Your task to perform on an android device: When is my next meeting? Image 0: 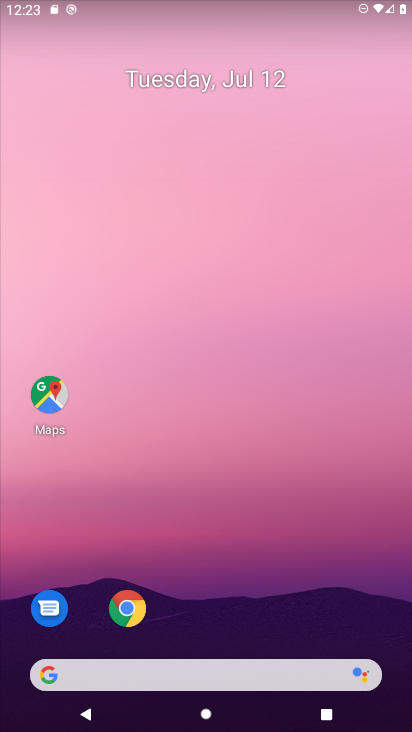
Step 0: drag from (211, 635) to (12, 604)
Your task to perform on an android device: When is my next meeting? Image 1: 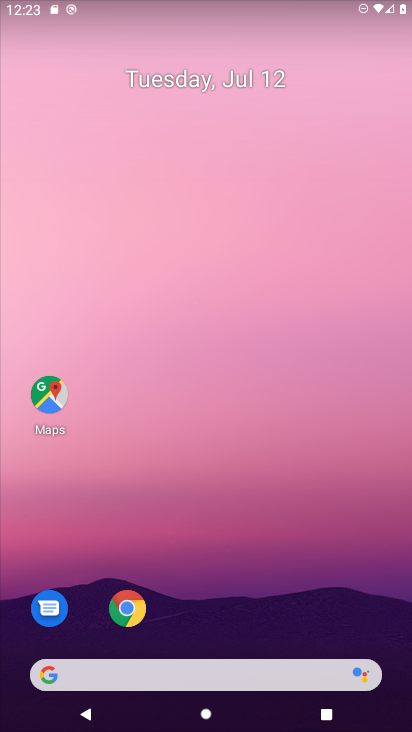
Step 1: drag from (220, 632) to (201, 52)
Your task to perform on an android device: When is my next meeting? Image 2: 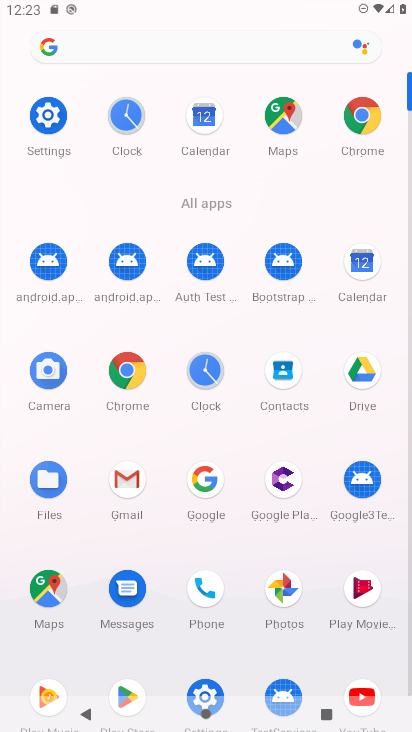
Step 2: click (363, 280)
Your task to perform on an android device: When is my next meeting? Image 3: 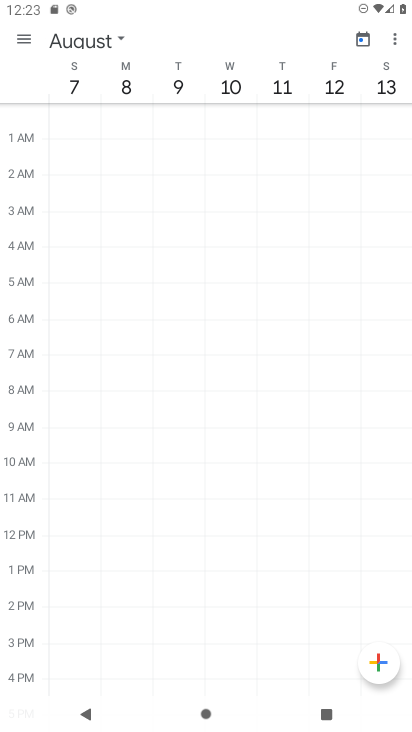
Step 3: click (370, 31)
Your task to perform on an android device: When is my next meeting? Image 4: 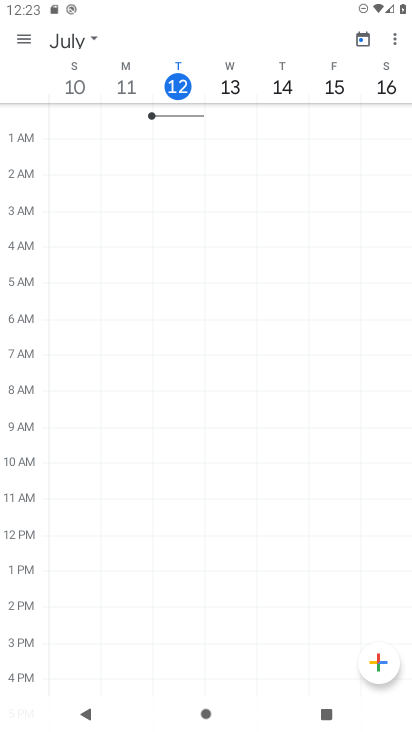
Step 4: task complete